Your task to perform on an android device: add a label to a message in the gmail app Image 0: 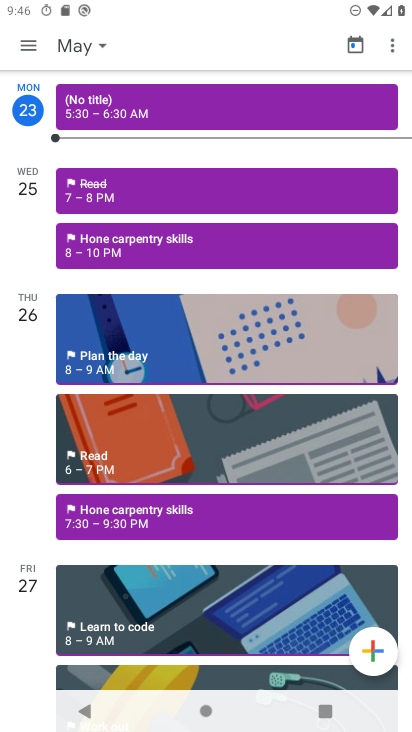
Step 0: press home button
Your task to perform on an android device: add a label to a message in the gmail app Image 1: 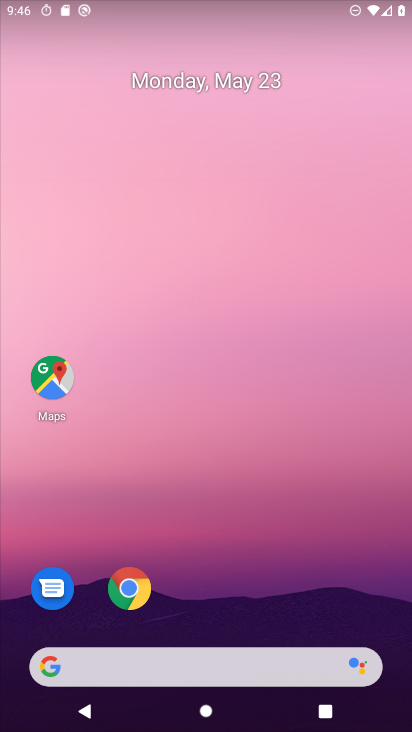
Step 1: drag from (402, 659) to (404, 273)
Your task to perform on an android device: add a label to a message in the gmail app Image 2: 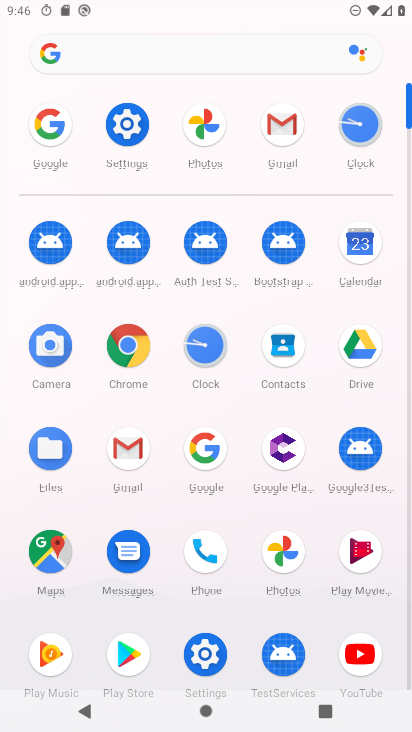
Step 2: click (293, 121)
Your task to perform on an android device: add a label to a message in the gmail app Image 3: 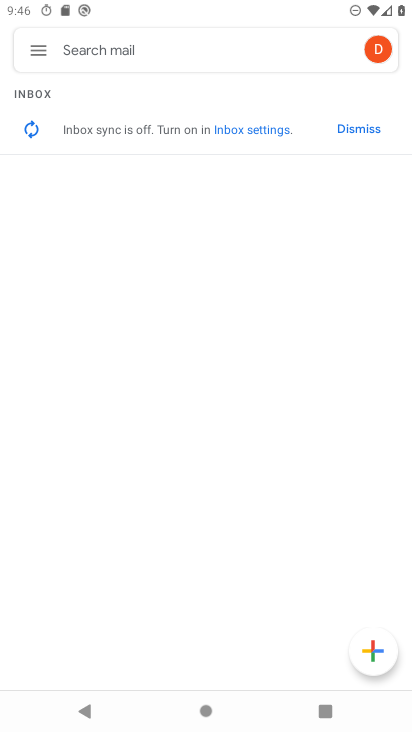
Step 3: click (40, 51)
Your task to perform on an android device: add a label to a message in the gmail app Image 4: 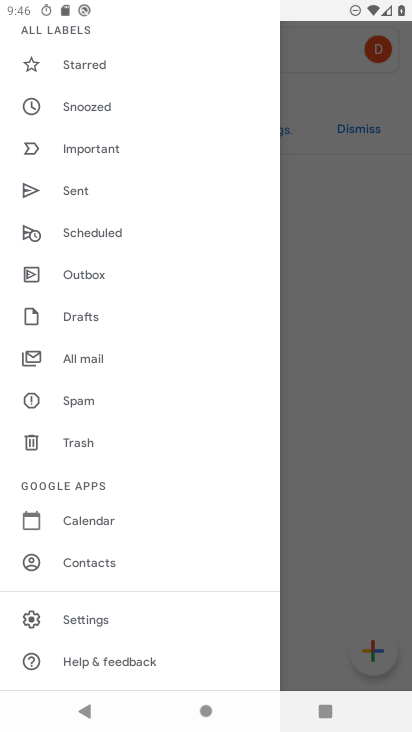
Step 4: drag from (170, 87) to (164, 543)
Your task to perform on an android device: add a label to a message in the gmail app Image 5: 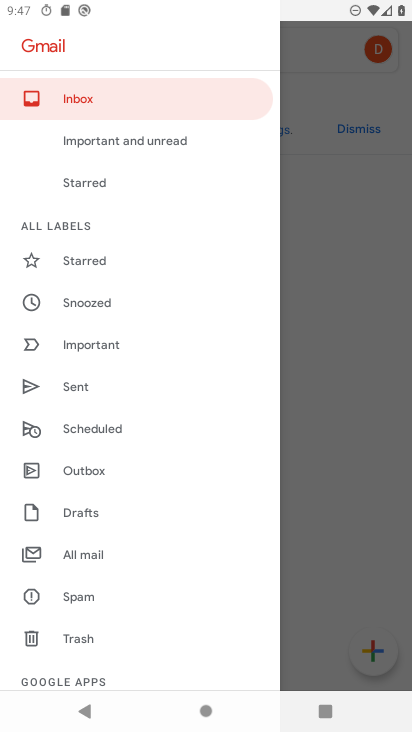
Step 5: click (146, 99)
Your task to perform on an android device: add a label to a message in the gmail app Image 6: 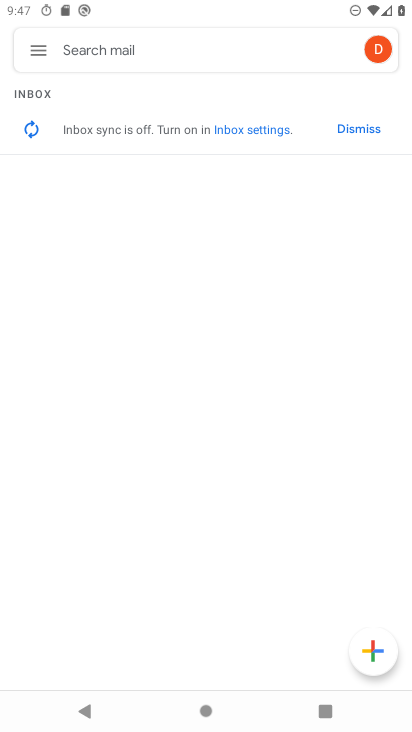
Step 6: task complete